Your task to perform on an android device: Open Android settings Image 0: 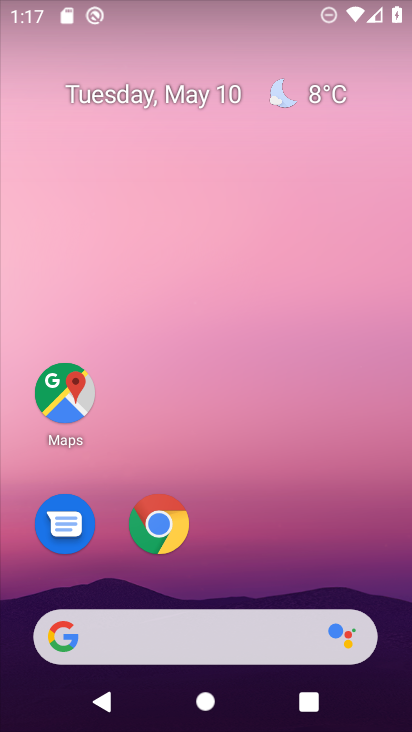
Step 0: press home button
Your task to perform on an android device: Open Android settings Image 1: 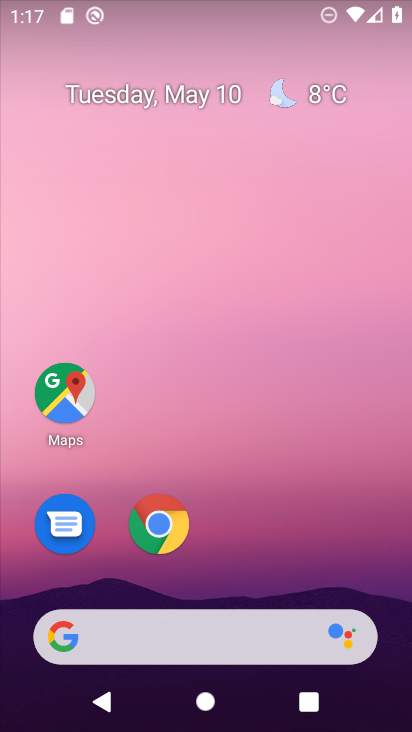
Step 1: drag from (261, 526) to (241, 35)
Your task to perform on an android device: Open Android settings Image 2: 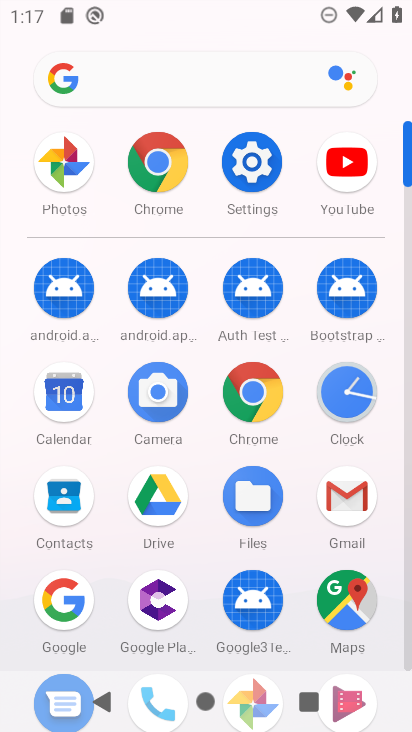
Step 2: click (243, 151)
Your task to perform on an android device: Open Android settings Image 3: 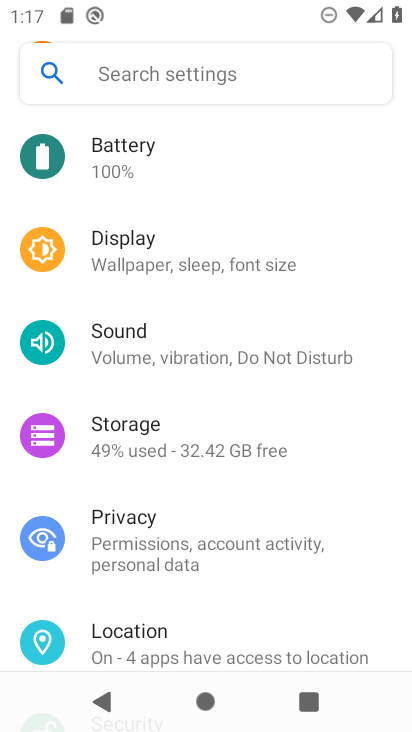
Step 3: drag from (223, 564) to (255, 127)
Your task to perform on an android device: Open Android settings Image 4: 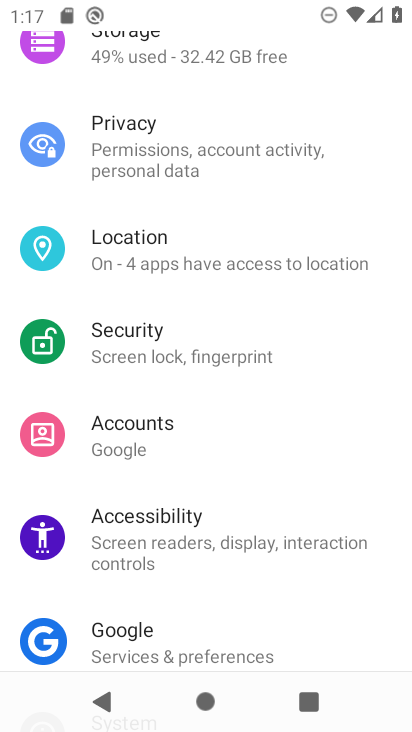
Step 4: drag from (205, 571) to (229, 147)
Your task to perform on an android device: Open Android settings Image 5: 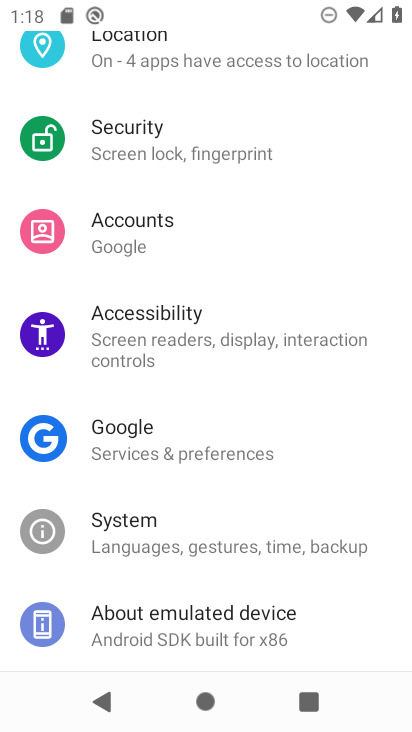
Step 5: click (209, 617)
Your task to perform on an android device: Open Android settings Image 6: 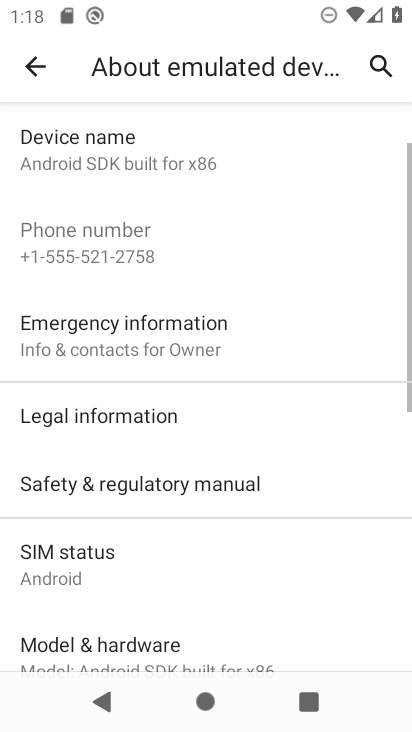
Step 6: task complete